Your task to perform on an android device: turn on data saver in the chrome app Image 0: 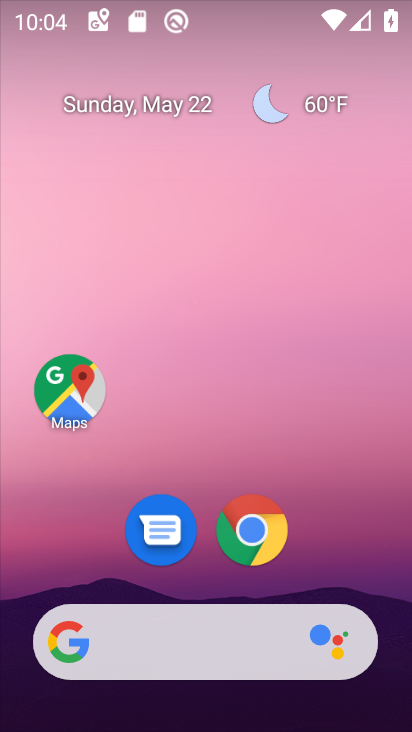
Step 0: click (265, 517)
Your task to perform on an android device: turn on data saver in the chrome app Image 1: 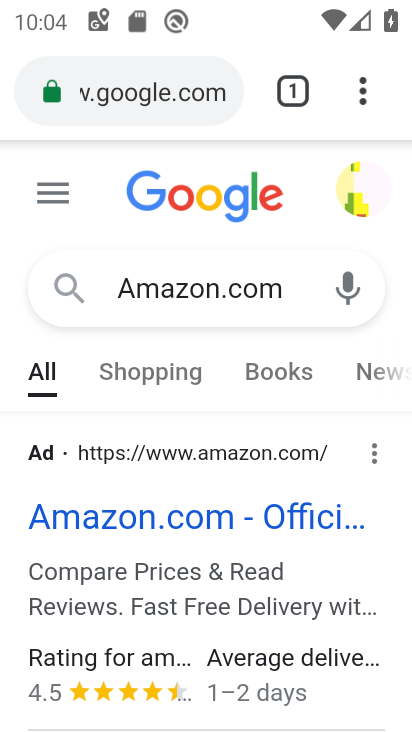
Step 1: click (364, 89)
Your task to perform on an android device: turn on data saver in the chrome app Image 2: 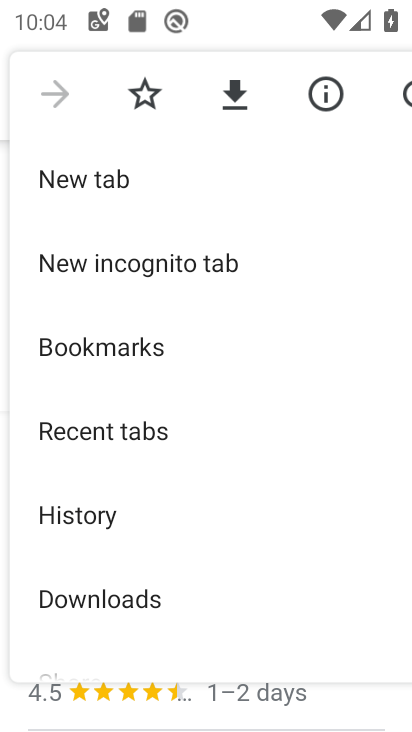
Step 2: drag from (262, 629) to (258, 298)
Your task to perform on an android device: turn on data saver in the chrome app Image 3: 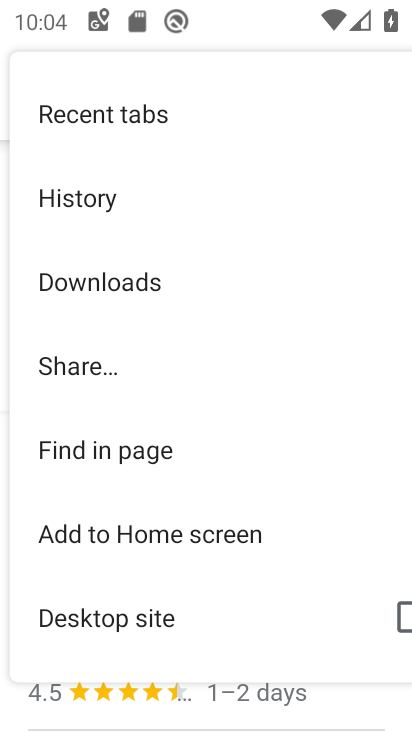
Step 3: drag from (299, 579) to (282, 240)
Your task to perform on an android device: turn on data saver in the chrome app Image 4: 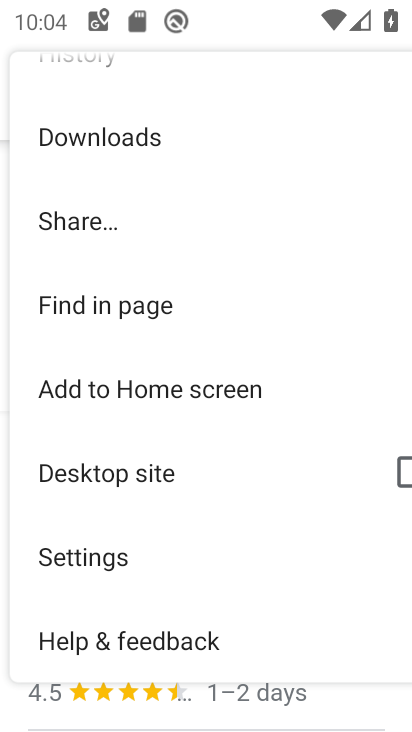
Step 4: click (93, 561)
Your task to perform on an android device: turn on data saver in the chrome app Image 5: 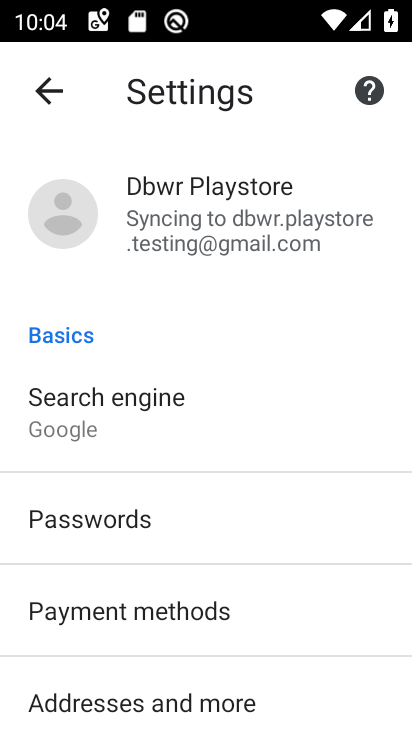
Step 5: drag from (283, 682) to (273, 308)
Your task to perform on an android device: turn on data saver in the chrome app Image 6: 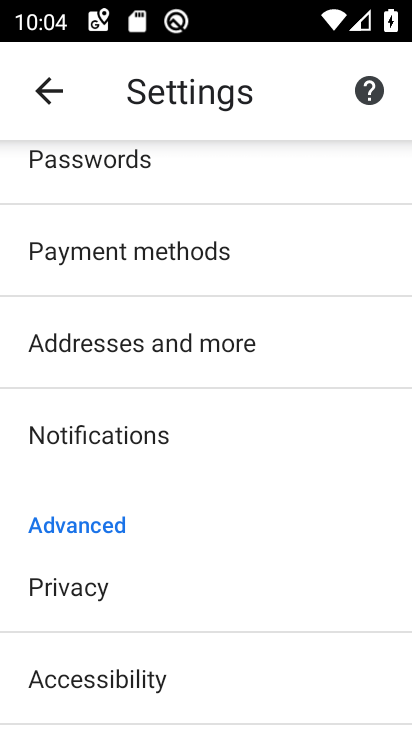
Step 6: drag from (270, 648) to (279, 370)
Your task to perform on an android device: turn on data saver in the chrome app Image 7: 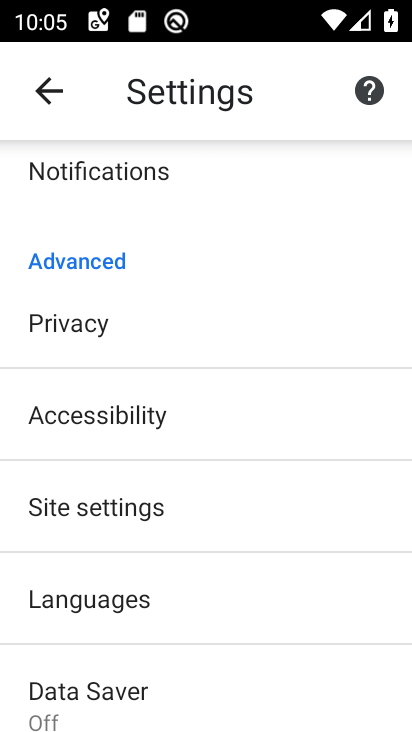
Step 7: click (91, 687)
Your task to perform on an android device: turn on data saver in the chrome app Image 8: 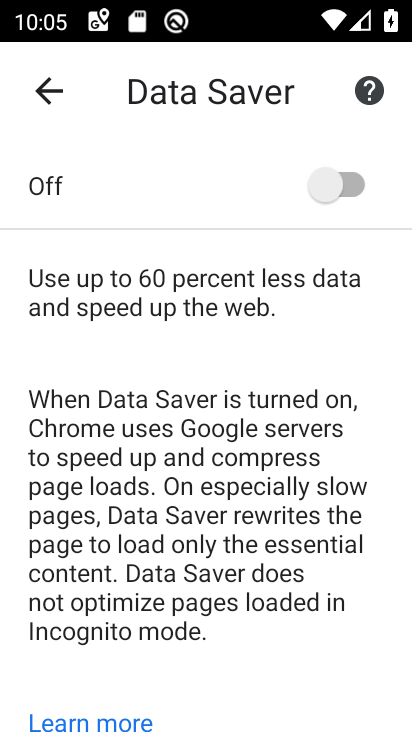
Step 8: click (349, 198)
Your task to perform on an android device: turn on data saver in the chrome app Image 9: 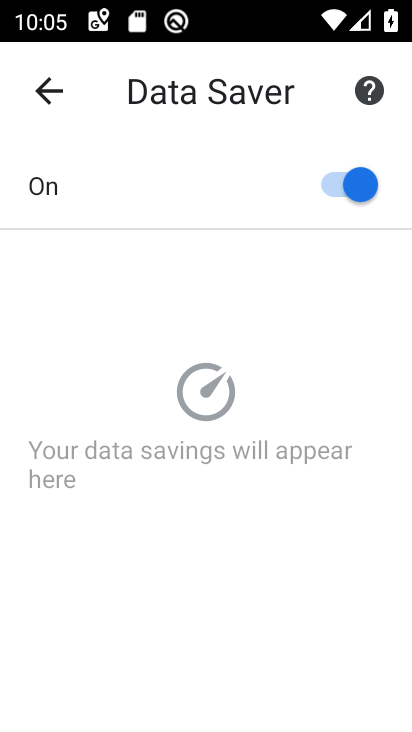
Step 9: task complete